Your task to perform on an android device: delete the emails in spam in the gmail app Image 0: 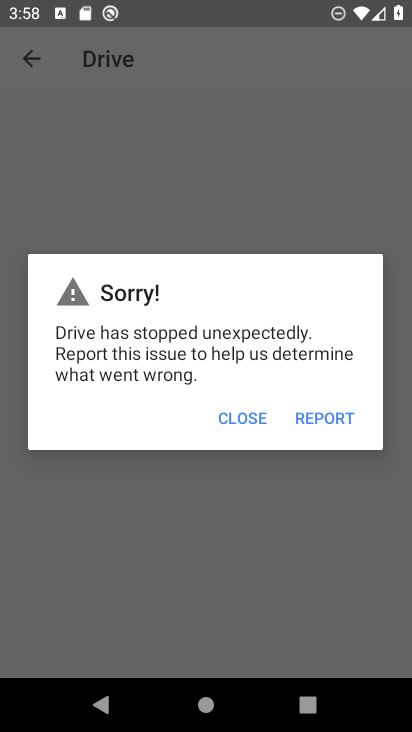
Step 0: task complete